Your task to perform on an android device: Search for pizza restaurants on Maps Image 0: 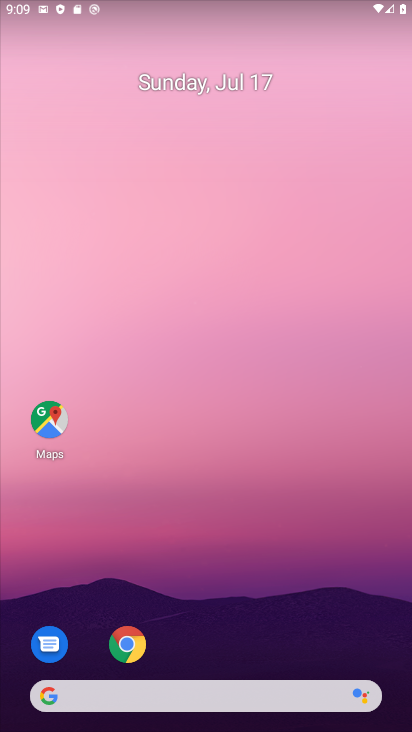
Step 0: drag from (216, 674) to (184, 189)
Your task to perform on an android device: Search for pizza restaurants on Maps Image 1: 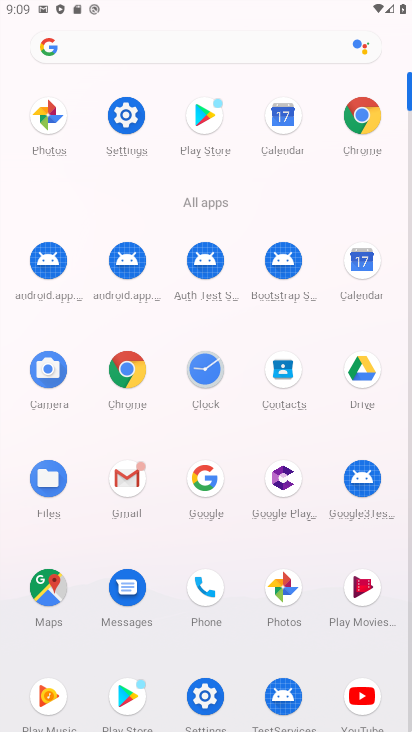
Step 1: click (38, 589)
Your task to perform on an android device: Search for pizza restaurants on Maps Image 2: 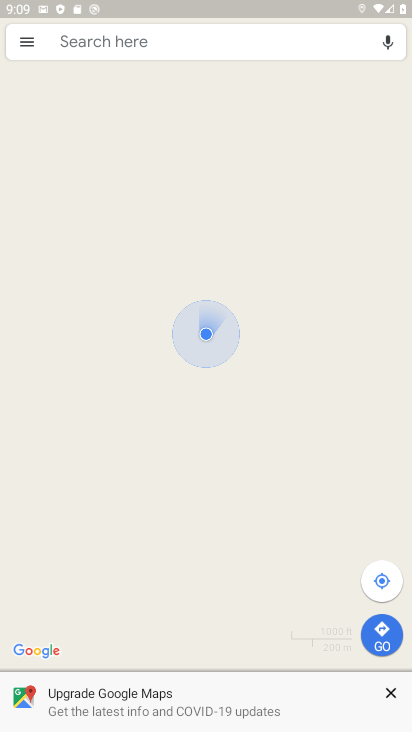
Step 2: click (153, 41)
Your task to perform on an android device: Search for pizza restaurants on Maps Image 3: 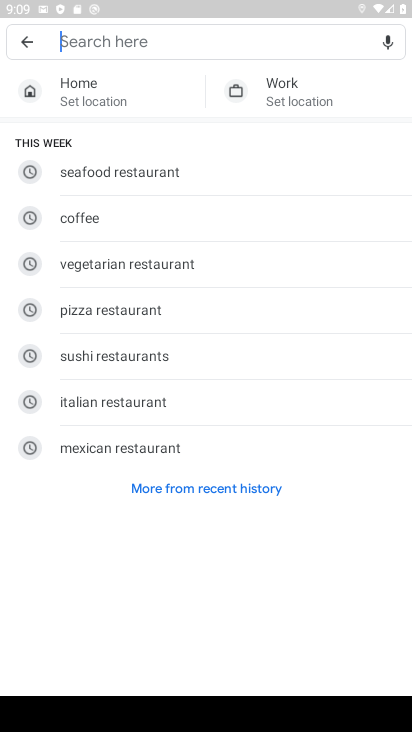
Step 3: type "pizza restaurants"
Your task to perform on an android device: Search for pizza restaurants on Maps Image 4: 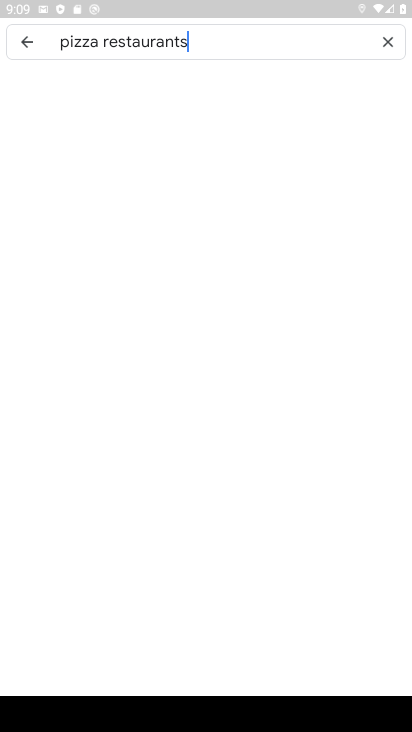
Step 4: type ""
Your task to perform on an android device: Search for pizza restaurants on Maps Image 5: 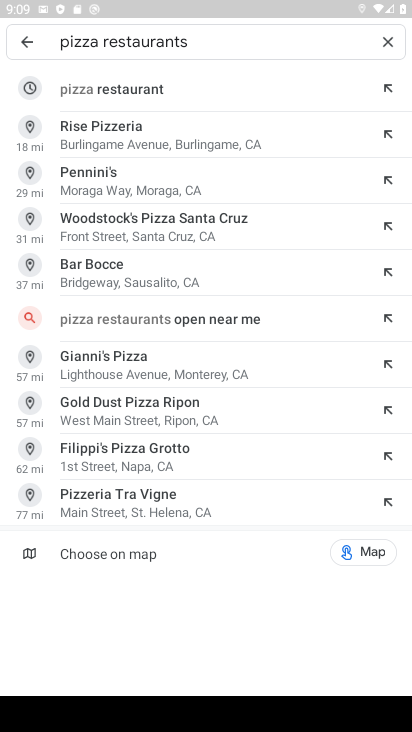
Step 5: click (99, 84)
Your task to perform on an android device: Search for pizza restaurants on Maps Image 6: 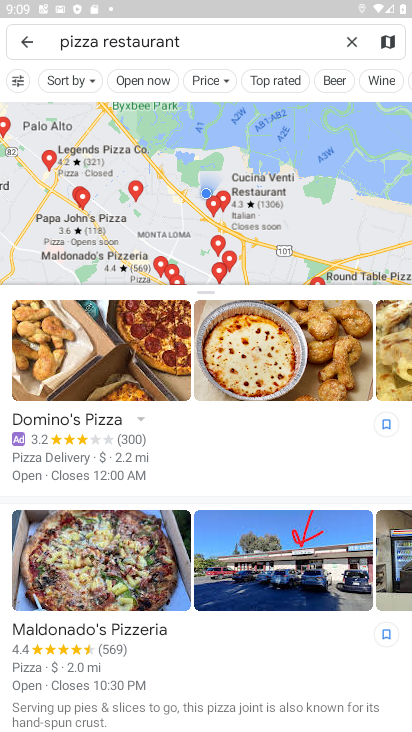
Step 6: task complete